Your task to perform on an android device: turn off smart reply in the gmail app Image 0: 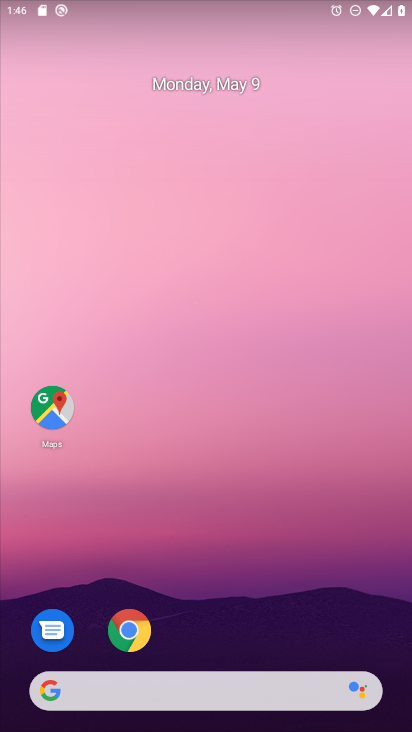
Step 0: drag from (302, 681) to (360, 205)
Your task to perform on an android device: turn off smart reply in the gmail app Image 1: 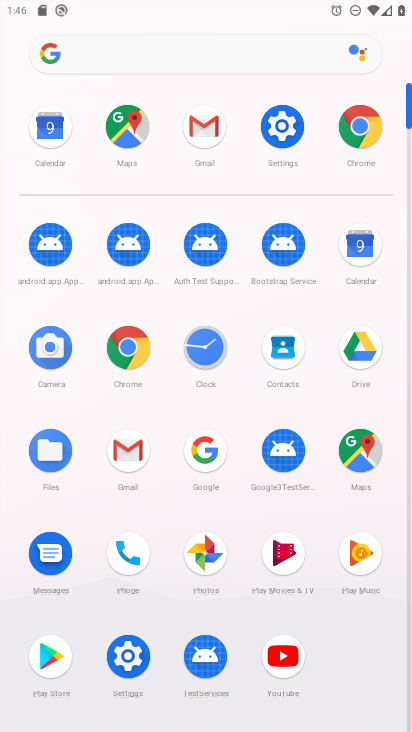
Step 1: click (112, 455)
Your task to perform on an android device: turn off smart reply in the gmail app Image 2: 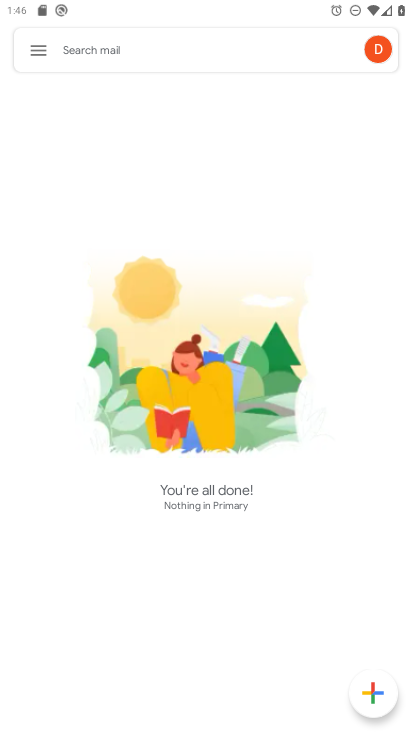
Step 2: click (34, 49)
Your task to perform on an android device: turn off smart reply in the gmail app Image 3: 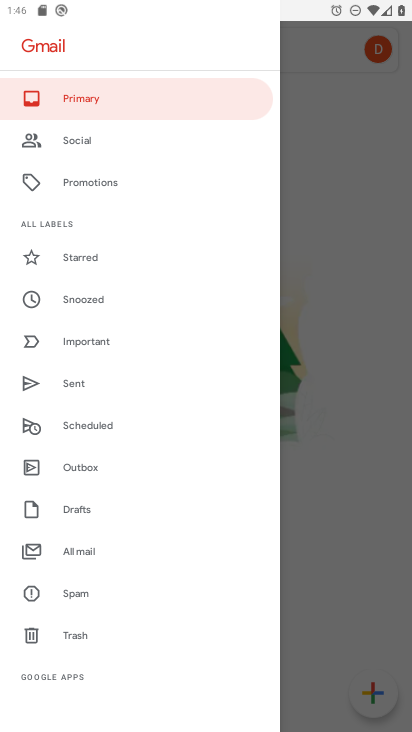
Step 3: drag from (92, 611) to (178, 439)
Your task to perform on an android device: turn off smart reply in the gmail app Image 4: 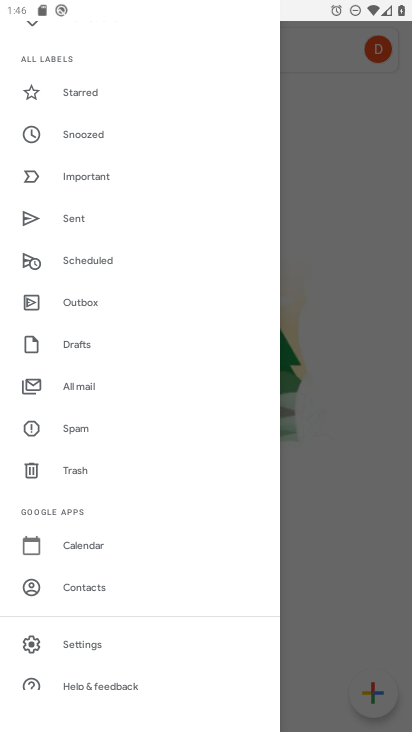
Step 4: click (83, 645)
Your task to perform on an android device: turn off smart reply in the gmail app Image 5: 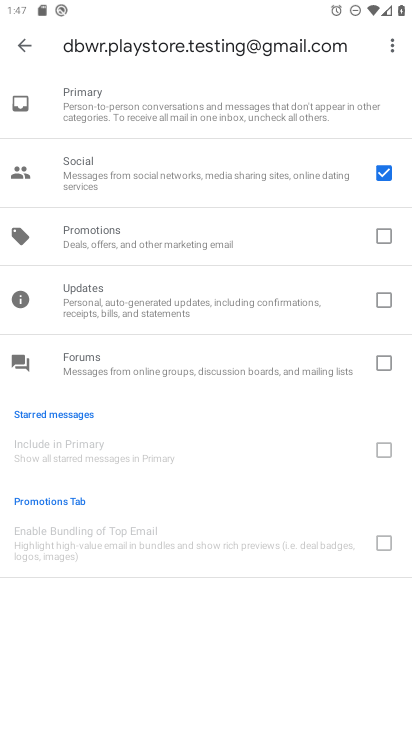
Step 5: click (25, 42)
Your task to perform on an android device: turn off smart reply in the gmail app Image 6: 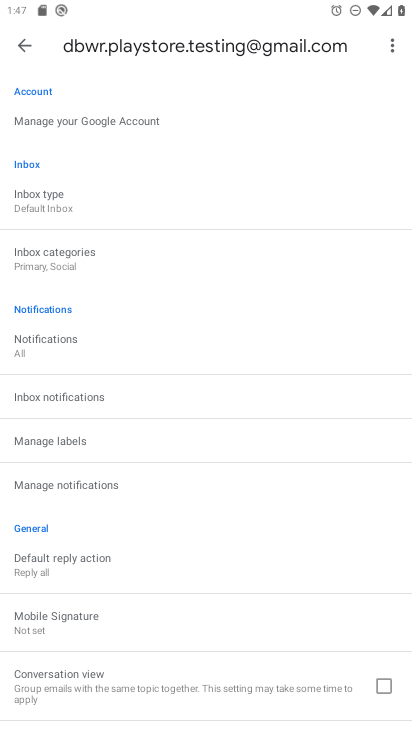
Step 6: drag from (224, 548) to (318, 251)
Your task to perform on an android device: turn off smart reply in the gmail app Image 7: 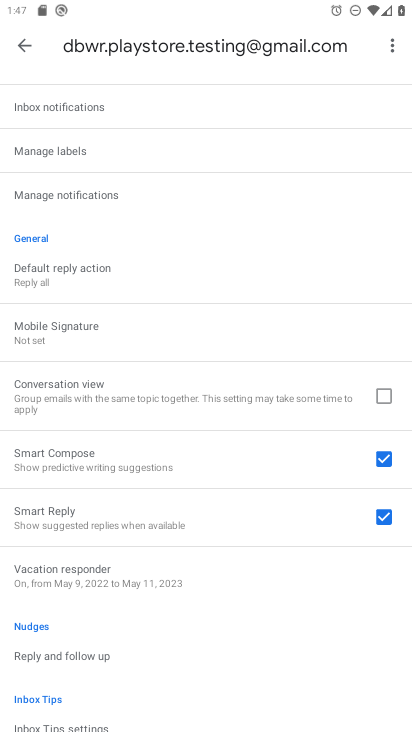
Step 7: drag from (142, 603) to (148, 564)
Your task to perform on an android device: turn off smart reply in the gmail app Image 8: 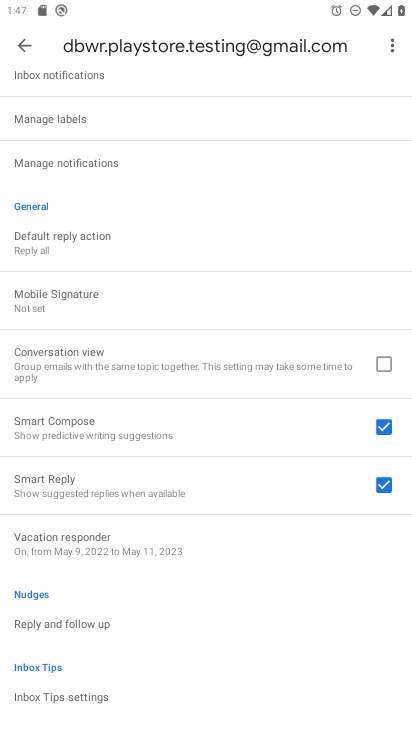
Step 8: click (277, 488)
Your task to perform on an android device: turn off smart reply in the gmail app Image 9: 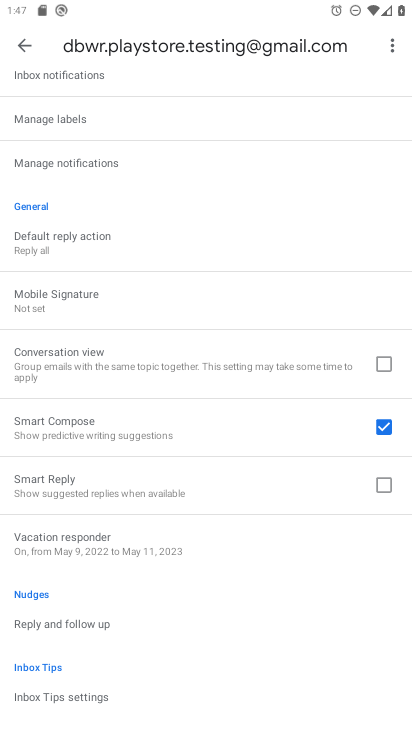
Step 9: task complete